Your task to perform on an android device: see creations saved in the google photos Image 0: 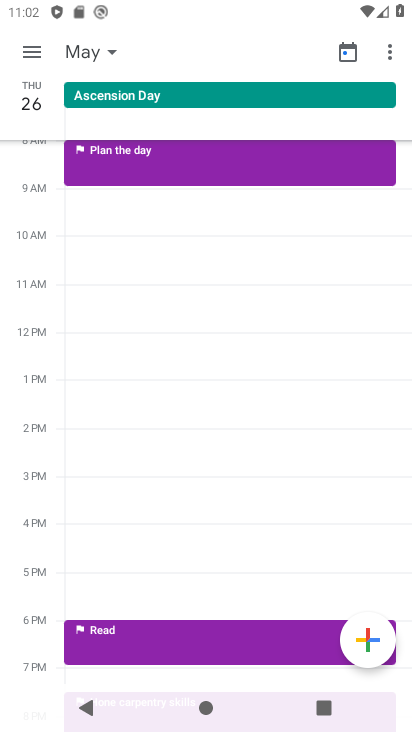
Step 0: press home button
Your task to perform on an android device: see creations saved in the google photos Image 1: 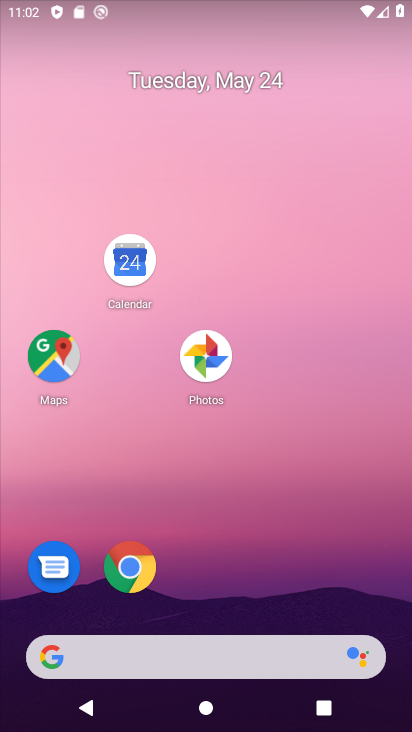
Step 1: click (192, 355)
Your task to perform on an android device: see creations saved in the google photos Image 2: 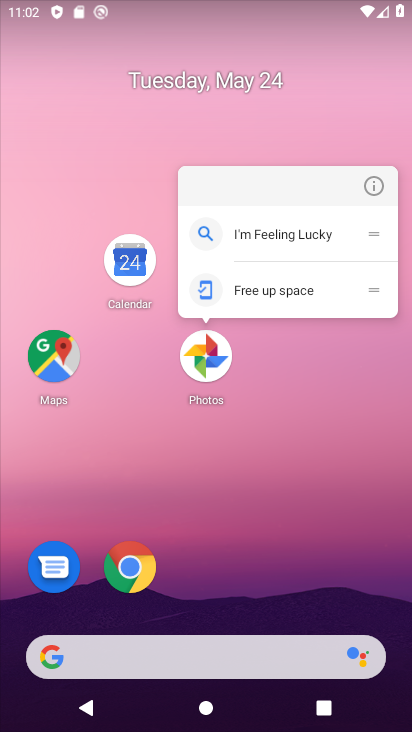
Step 2: click (223, 362)
Your task to perform on an android device: see creations saved in the google photos Image 3: 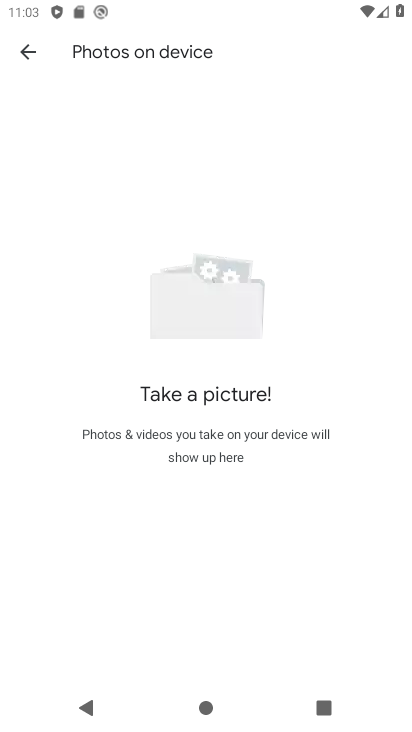
Step 3: click (27, 71)
Your task to perform on an android device: see creations saved in the google photos Image 4: 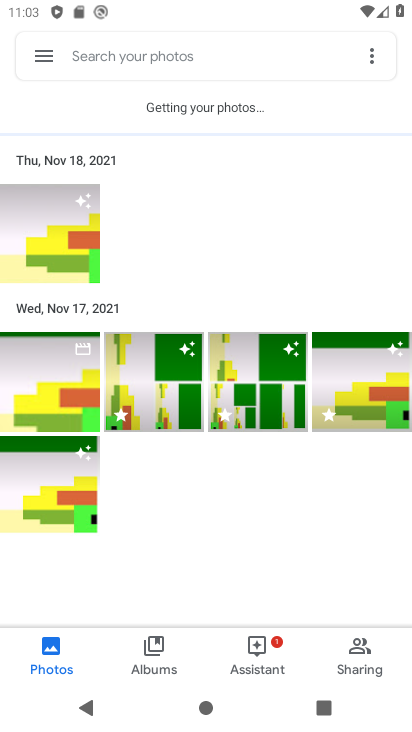
Step 4: click (160, 50)
Your task to perform on an android device: see creations saved in the google photos Image 5: 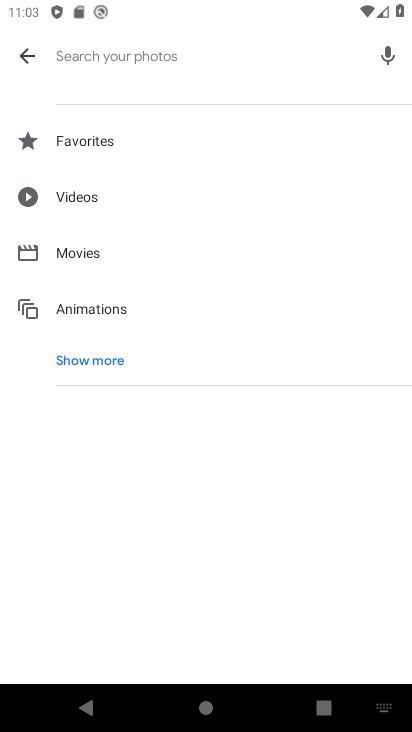
Step 5: click (63, 373)
Your task to perform on an android device: see creations saved in the google photos Image 6: 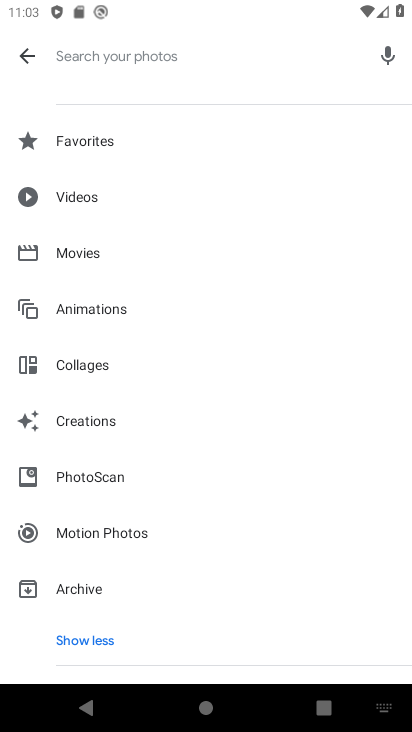
Step 6: click (77, 426)
Your task to perform on an android device: see creations saved in the google photos Image 7: 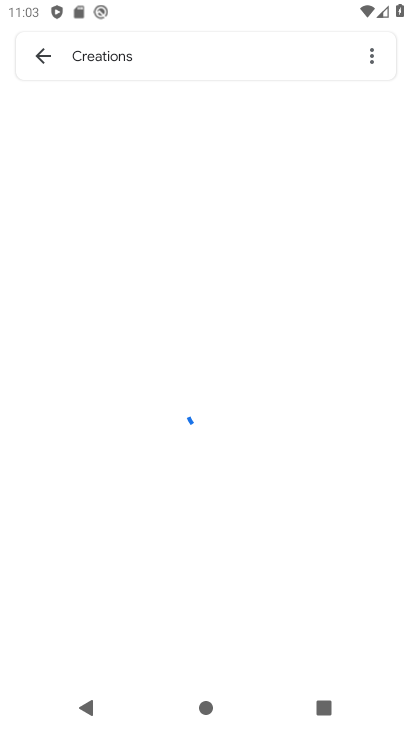
Step 7: task complete